Your task to perform on an android device: turn on improve location accuracy Image 0: 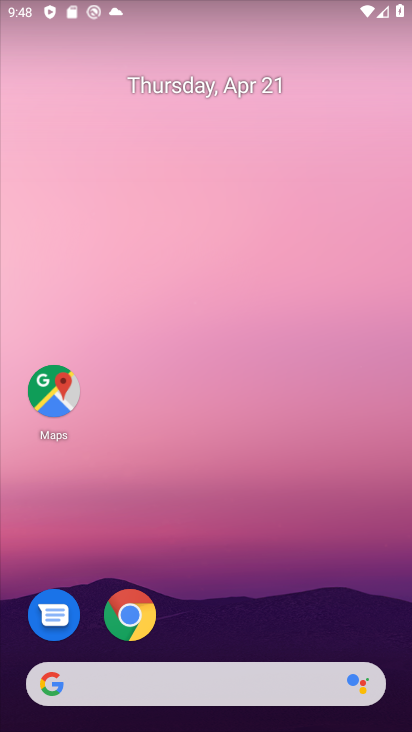
Step 0: drag from (222, 640) to (286, 11)
Your task to perform on an android device: turn on improve location accuracy Image 1: 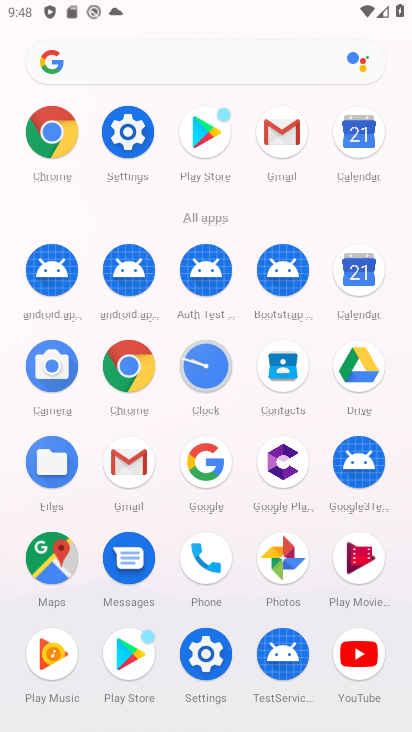
Step 1: click (201, 653)
Your task to perform on an android device: turn on improve location accuracy Image 2: 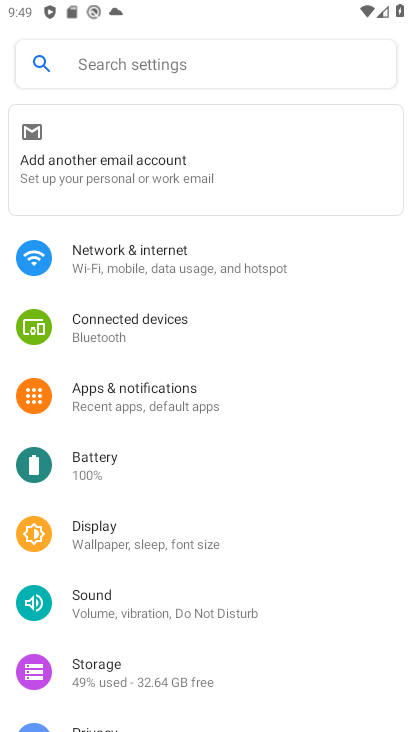
Step 2: drag from (131, 645) to (194, 181)
Your task to perform on an android device: turn on improve location accuracy Image 3: 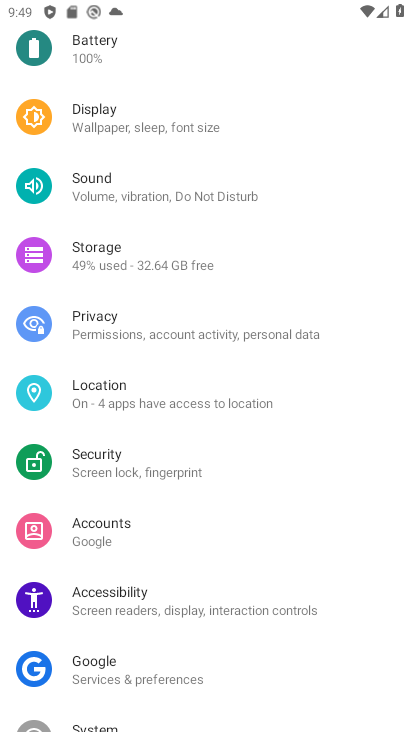
Step 3: click (133, 388)
Your task to perform on an android device: turn on improve location accuracy Image 4: 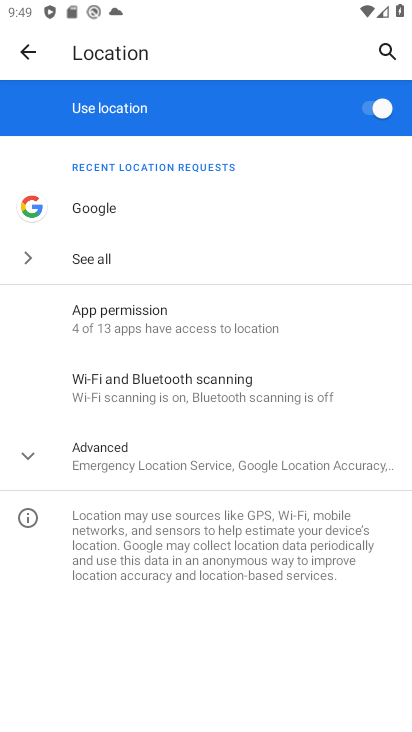
Step 4: click (24, 455)
Your task to perform on an android device: turn on improve location accuracy Image 5: 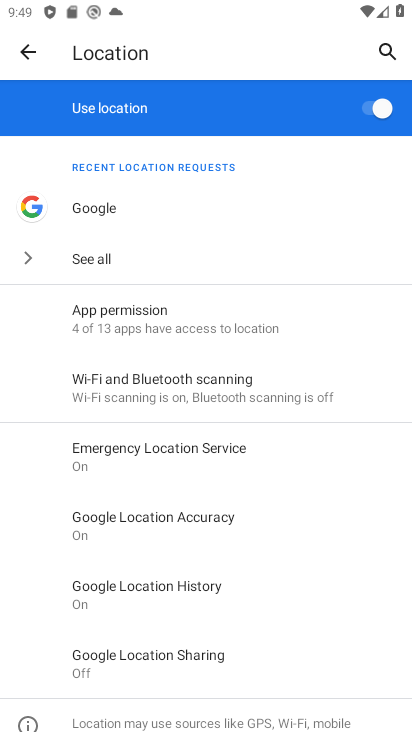
Step 5: click (144, 527)
Your task to perform on an android device: turn on improve location accuracy Image 6: 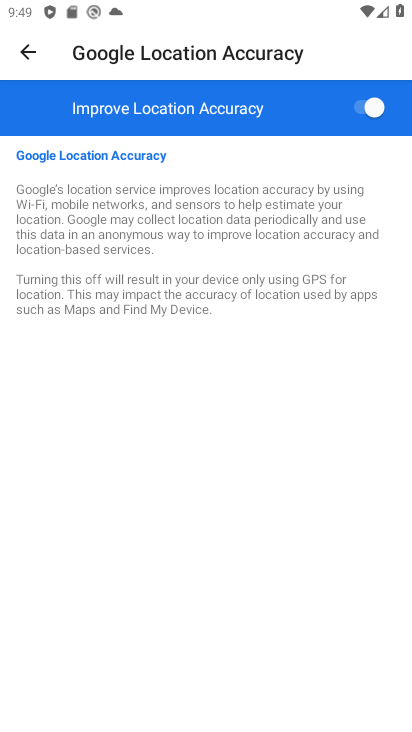
Step 6: task complete